Your task to perform on an android device: Play the last video I watched on Youtube Image 0: 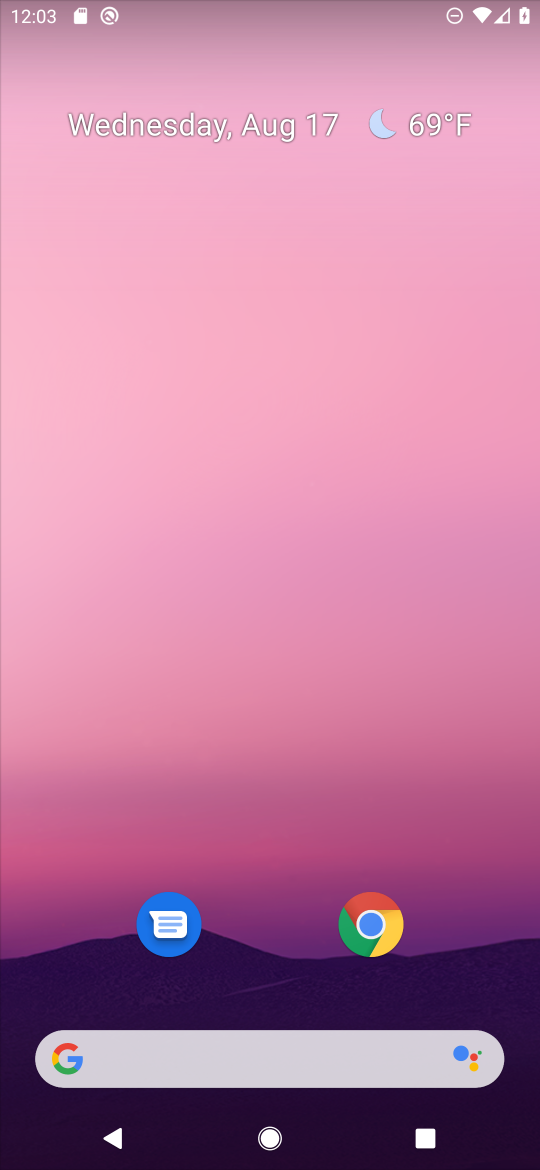
Step 0: press home button
Your task to perform on an android device: Play the last video I watched on Youtube Image 1: 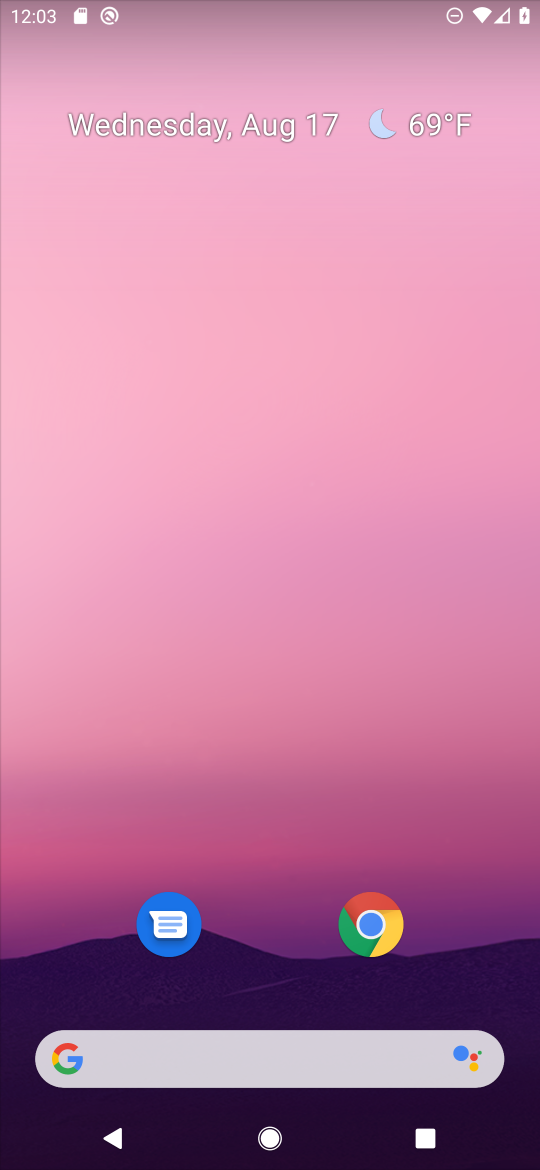
Step 1: drag from (267, 960) to (256, 48)
Your task to perform on an android device: Play the last video I watched on Youtube Image 2: 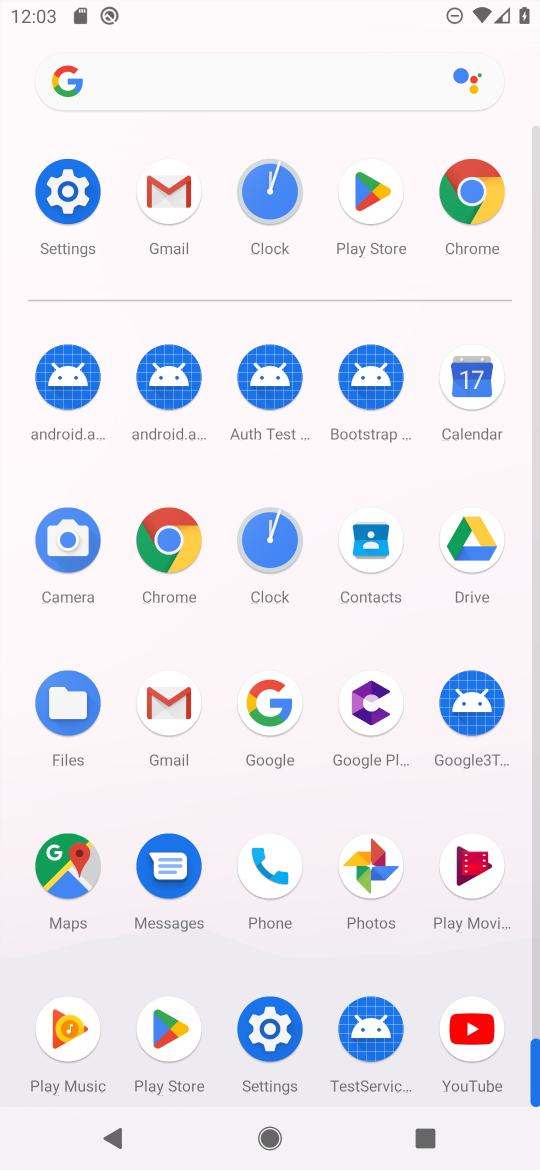
Step 2: click (482, 1059)
Your task to perform on an android device: Play the last video I watched on Youtube Image 3: 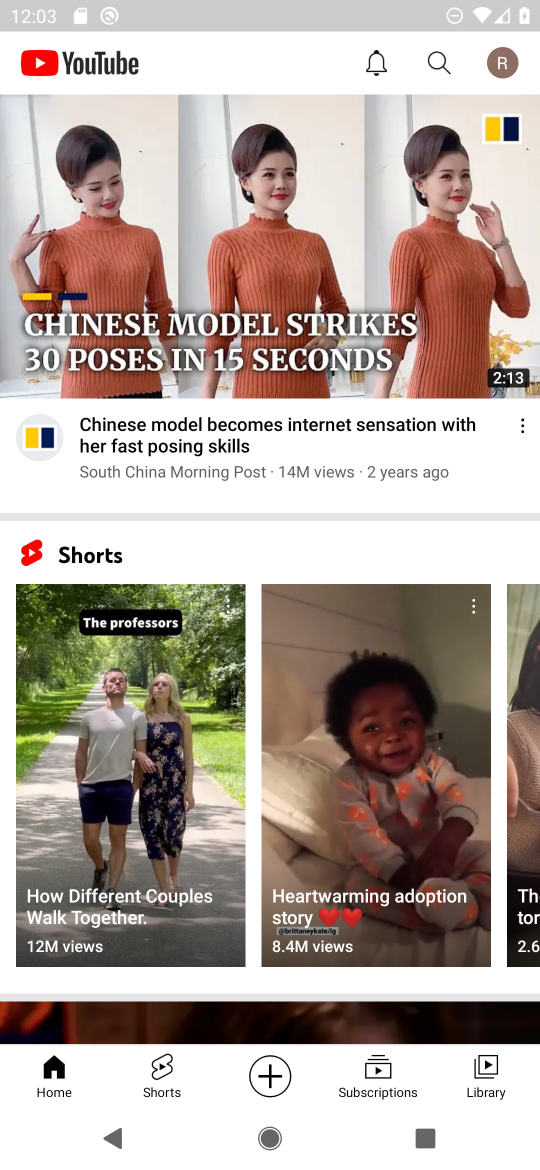
Step 3: click (491, 1069)
Your task to perform on an android device: Play the last video I watched on Youtube Image 4: 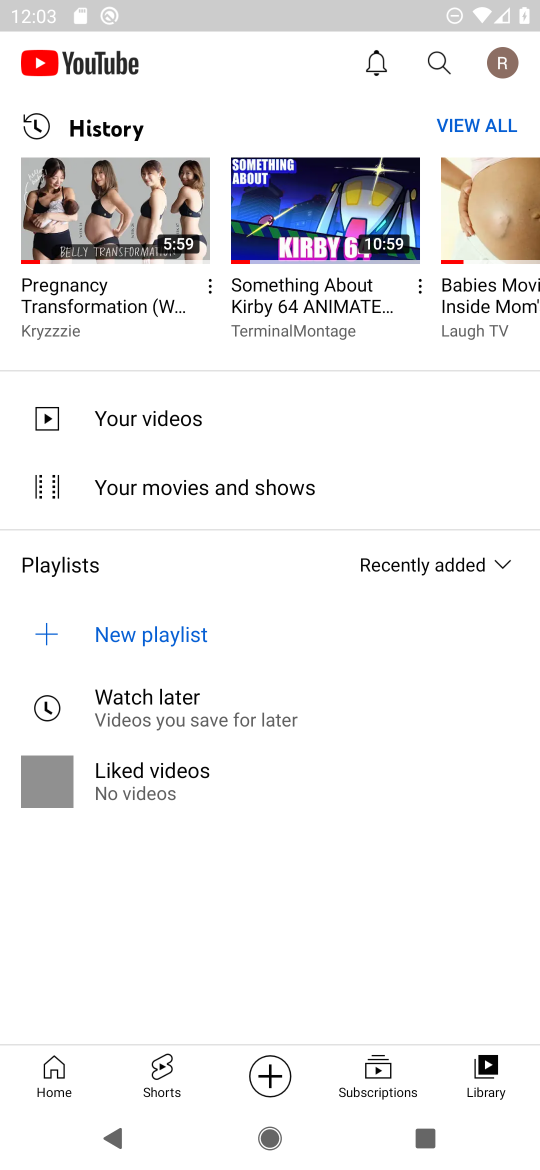
Step 4: click (151, 225)
Your task to perform on an android device: Play the last video I watched on Youtube Image 5: 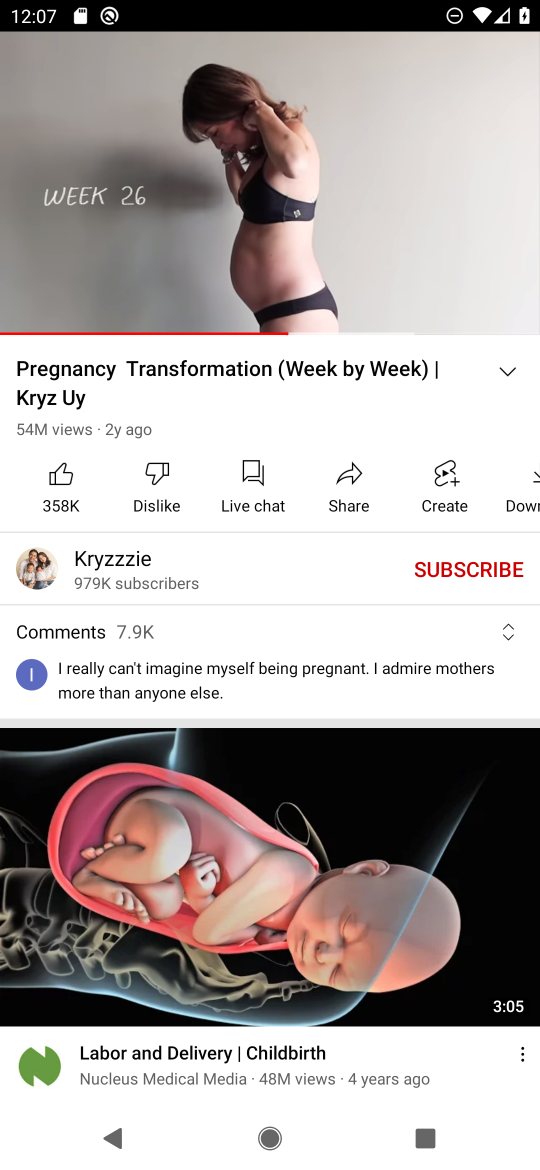
Step 5: task complete